Your task to perform on an android device: Open location settings Image 0: 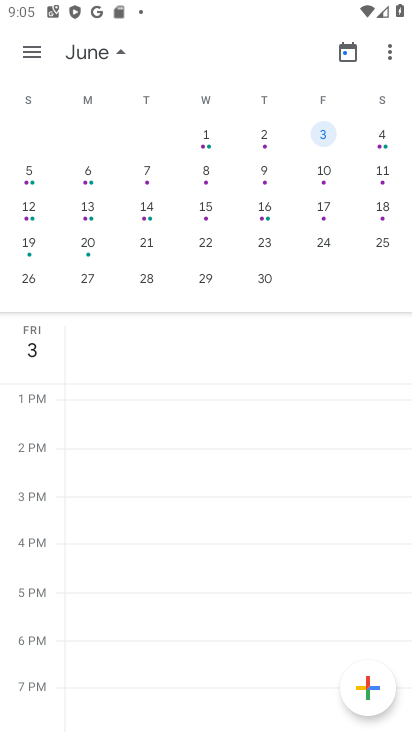
Step 0: press home button
Your task to perform on an android device: Open location settings Image 1: 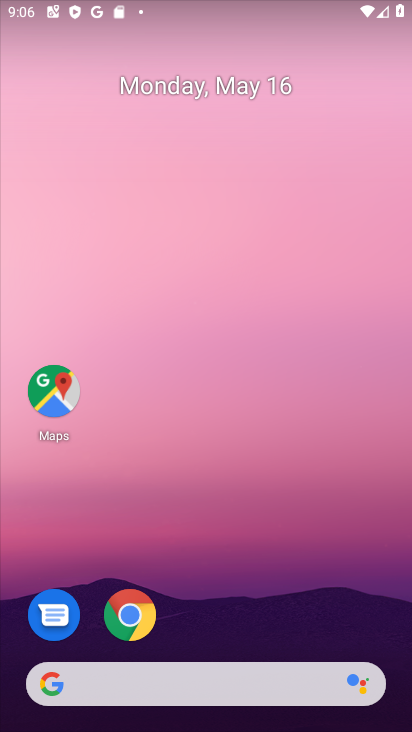
Step 1: drag from (74, 505) to (325, 155)
Your task to perform on an android device: Open location settings Image 2: 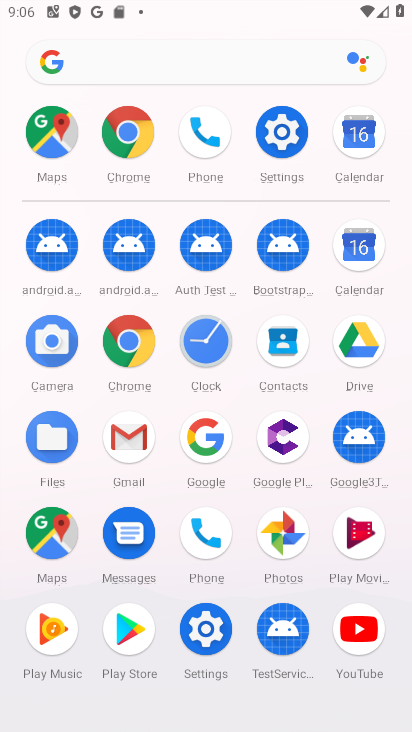
Step 2: click (274, 122)
Your task to perform on an android device: Open location settings Image 3: 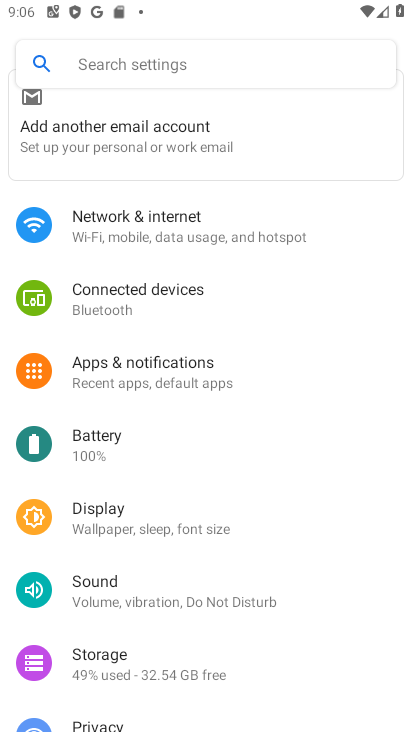
Step 3: drag from (86, 679) to (254, 257)
Your task to perform on an android device: Open location settings Image 4: 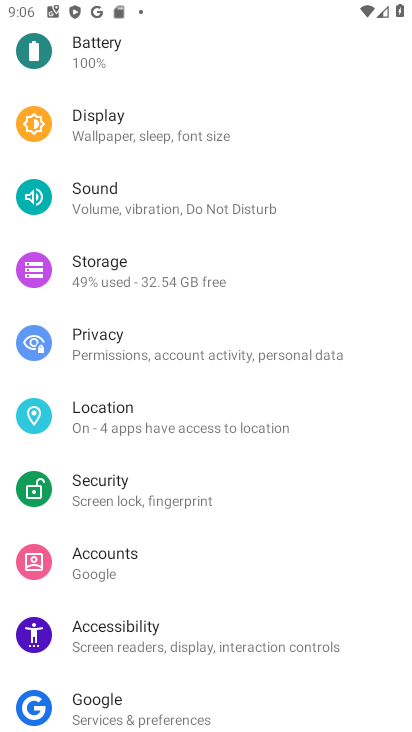
Step 4: click (151, 420)
Your task to perform on an android device: Open location settings Image 5: 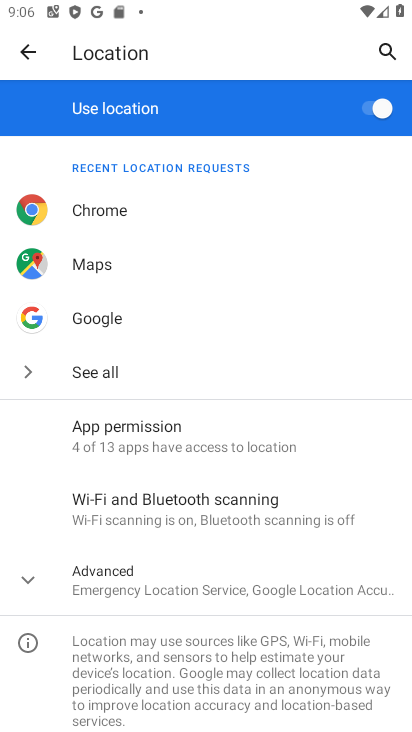
Step 5: task complete